Your task to perform on an android device: Go to Yahoo.com Image 0: 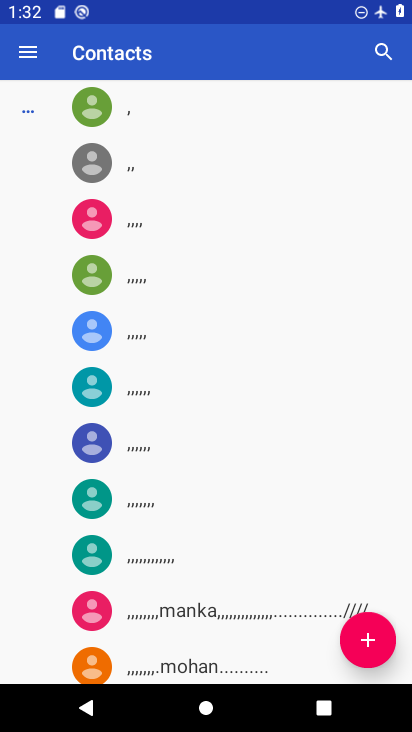
Step 0: press home button
Your task to perform on an android device: Go to Yahoo.com Image 1: 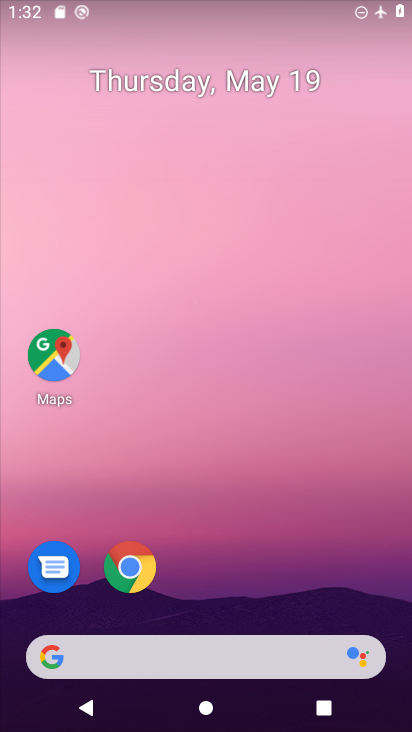
Step 1: click (225, 657)
Your task to perform on an android device: Go to Yahoo.com Image 2: 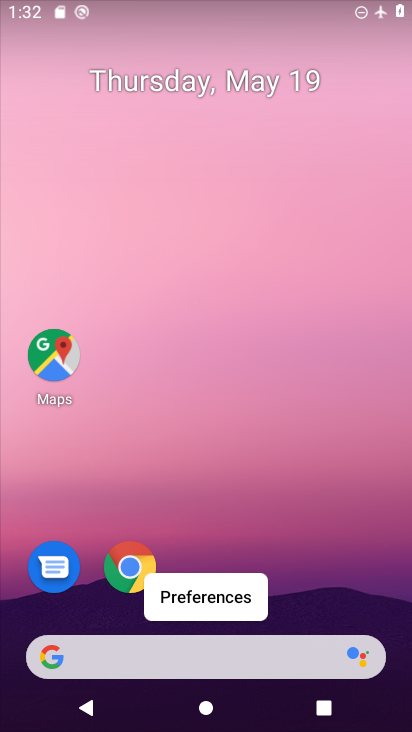
Step 2: click (221, 669)
Your task to perform on an android device: Go to Yahoo.com Image 3: 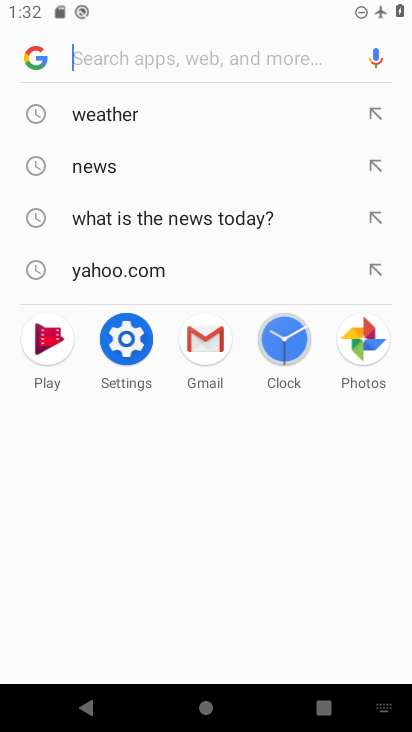
Step 3: type "yahoo.com"
Your task to perform on an android device: Go to Yahoo.com Image 4: 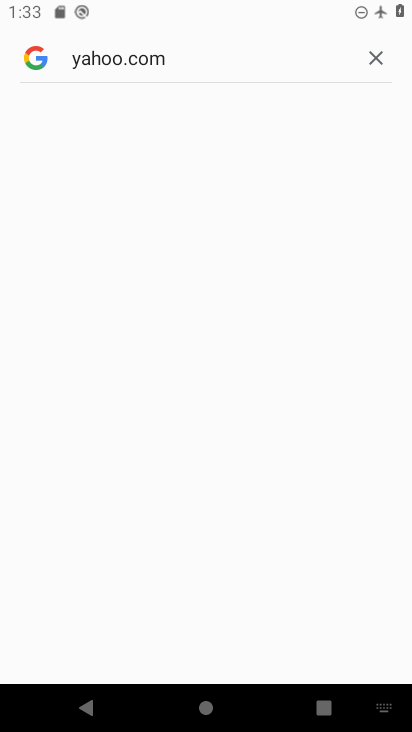
Step 4: task complete